Your task to perform on an android device: Go to privacy settings Image 0: 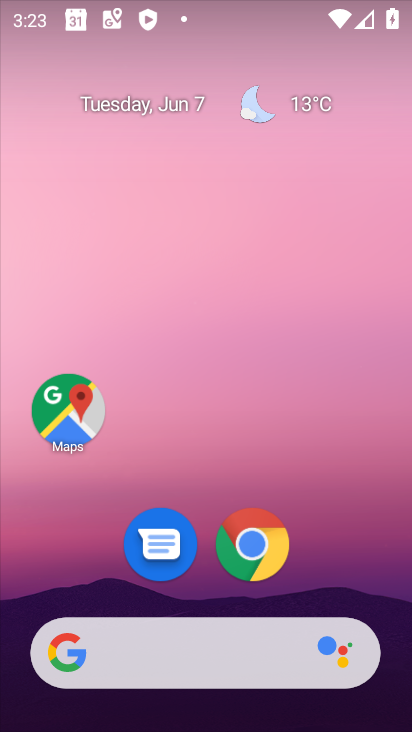
Step 0: press home button
Your task to perform on an android device: Go to privacy settings Image 1: 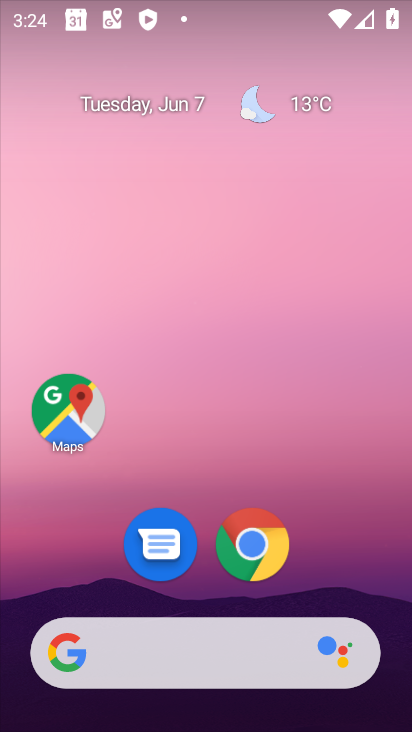
Step 1: drag from (211, 594) to (216, 327)
Your task to perform on an android device: Go to privacy settings Image 2: 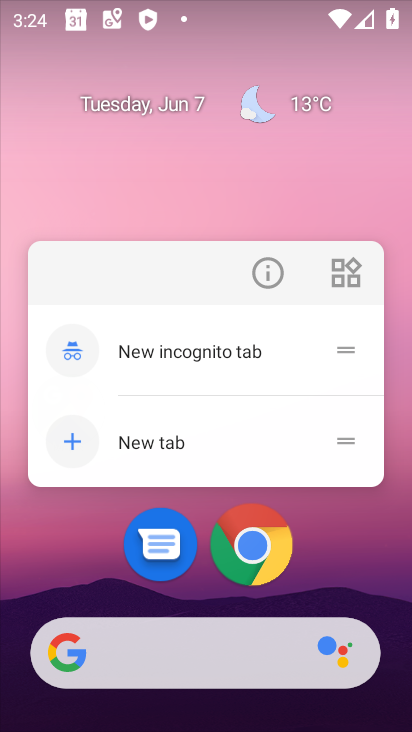
Step 2: click (225, 119)
Your task to perform on an android device: Go to privacy settings Image 3: 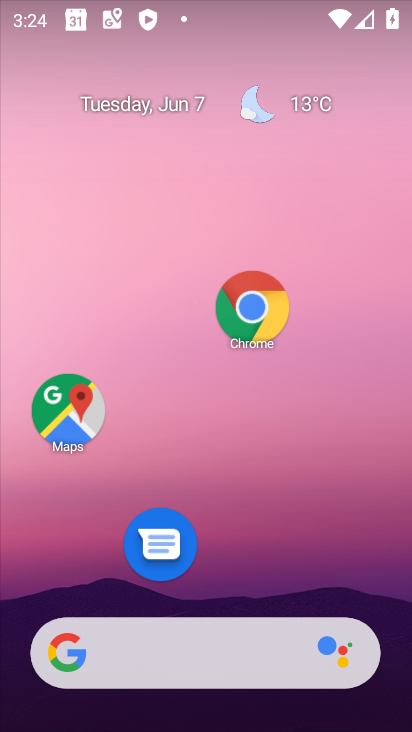
Step 3: drag from (249, 304) to (294, 556)
Your task to perform on an android device: Go to privacy settings Image 4: 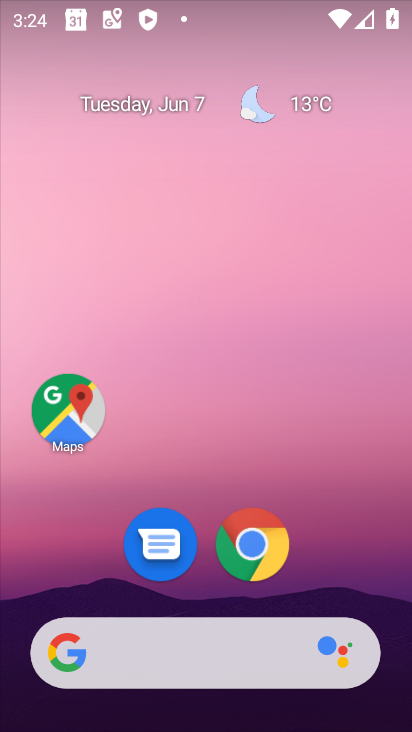
Step 4: drag from (343, 601) to (367, 25)
Your task to perform on an android device: Go to privacy settings Image 5: 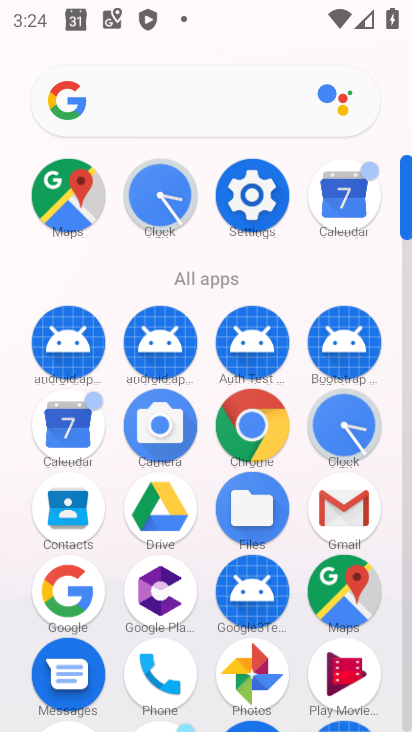
Step 5: click (248, 187)
Your task to perform on an android device: Go to privacy settings Image 6: 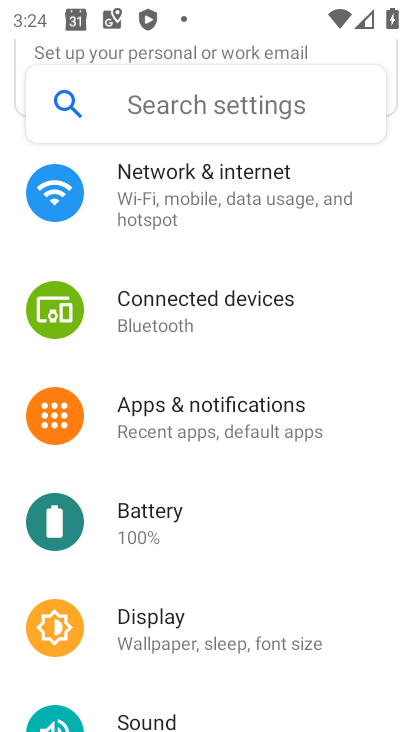
Step 6: drag from (216, 699) to (265, 228)
Your task to perform on an android device: Go to privacy settings Image 7: 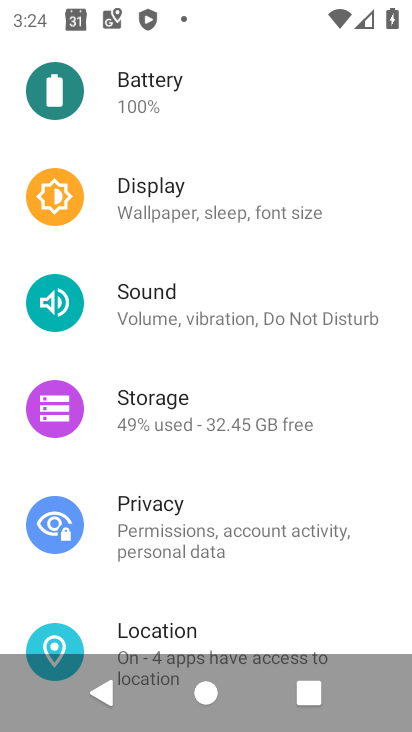
Step 7: click (203, 512)
Your task to perform on an android device: Go to privacy settings Image 8: 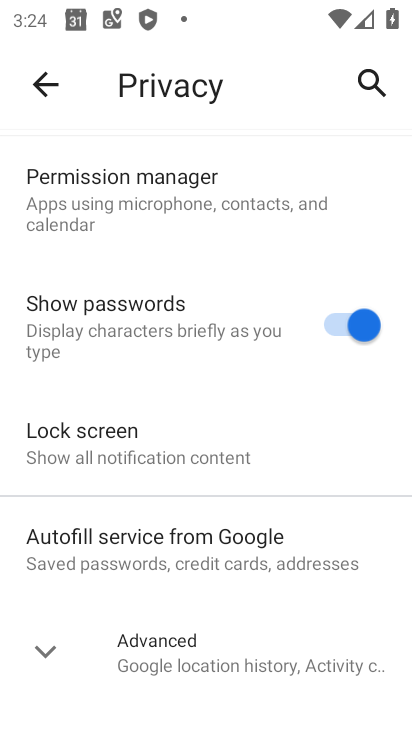
Step 8: click (38, 643)
Your task to perform on an android device: Go to privacy settings Image 9: 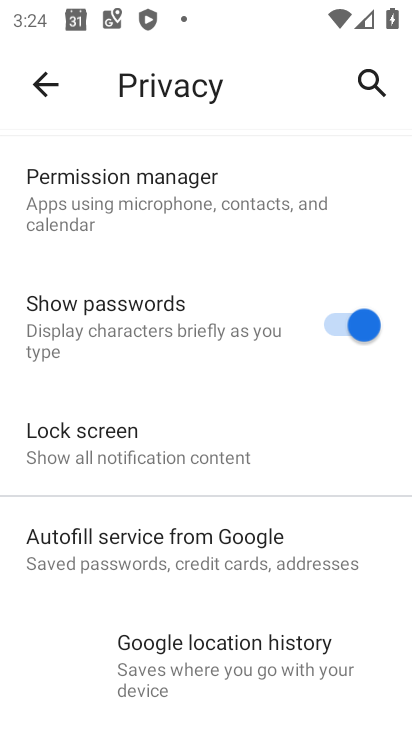
Step 9: task complete